Your task to perform on an android device: turn notification dots off Image 0: 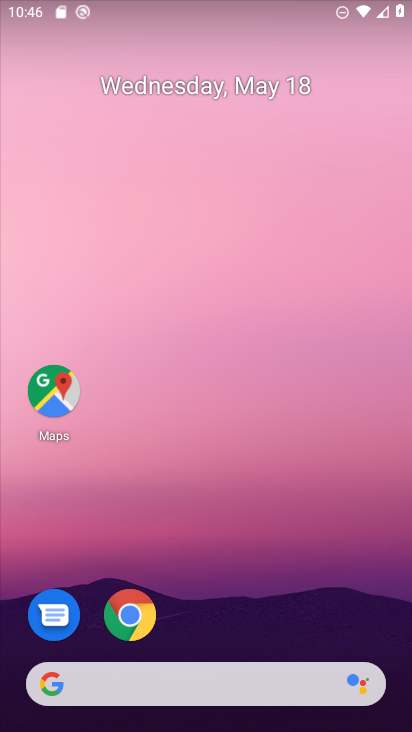
Step 0: drag from (241, 584) to (213, 101)
Your task to perform on an android device: turn notification dots off Image 1: 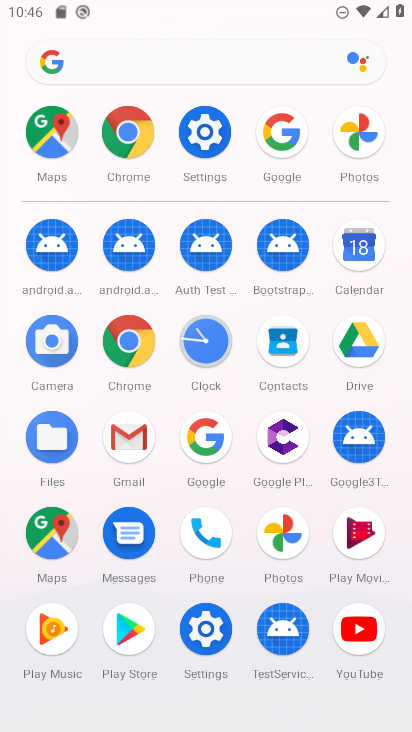
Step 1: click (202, 131)
Your task to perform on an android device: turn notification dots off Image 2: 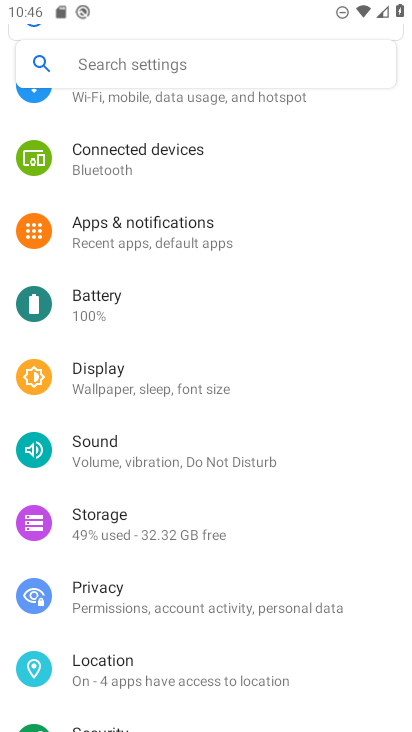
Step 2: click (163, 246)
Your task to perform on an android device: turn notification dots off Image 3: 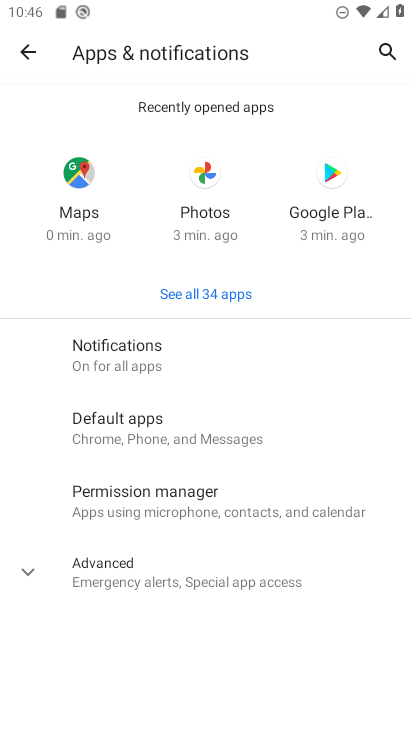
Step 3: click (145, 363)
Your task to perform on an android device: turn notification dots off Image 4: 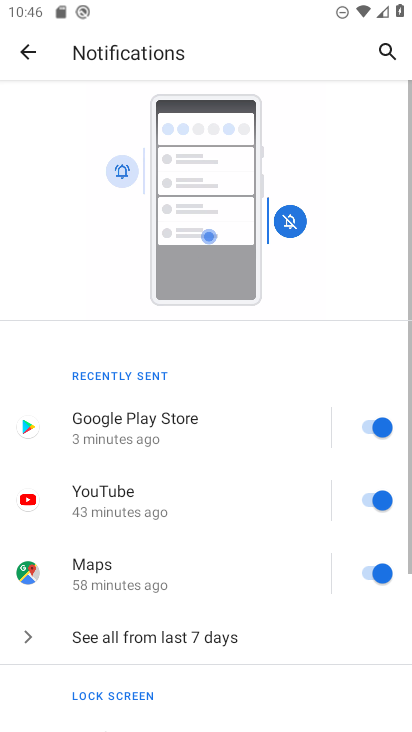
Step 4: drag from (190, 586) to (222, 23)
Your task to perform on an android device: turn notification dots off Image 5: 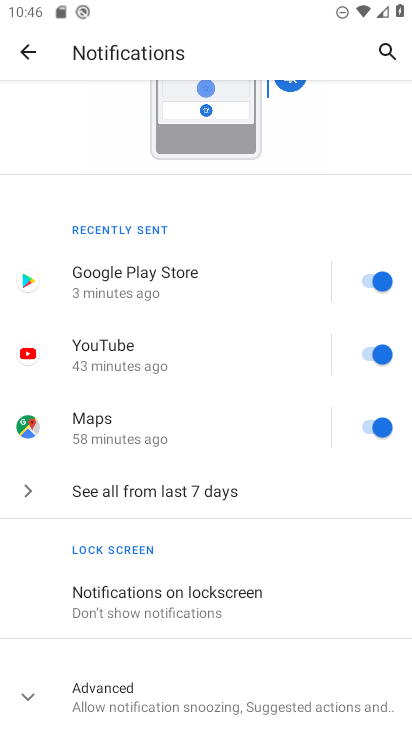
Step 5: drag from (248, 673) to (240, 254)
Your task to perform on an android device: turn notification dots off Image 6: 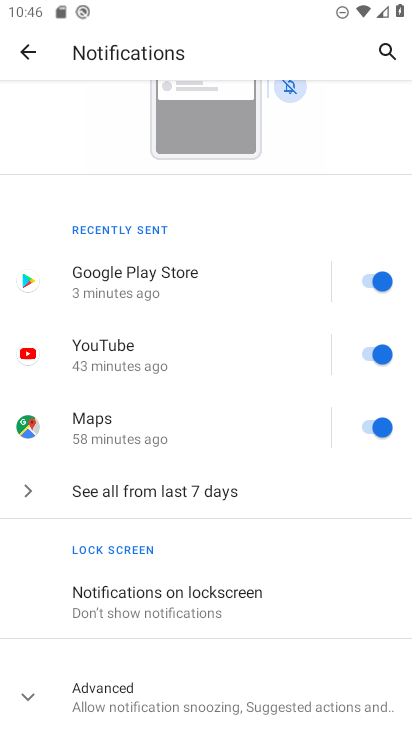
Step 6: click (131, 701)
Your task to perform on an android device: turn notification dots off Image 7: 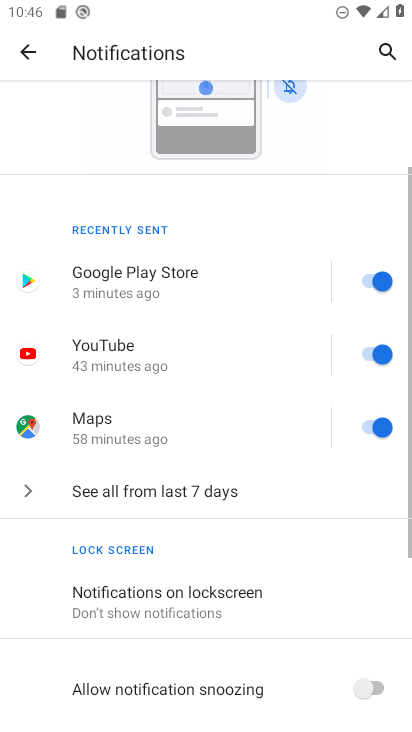
Step 7: drag from (246, 605) to (237, 159)
Your task to perform on an android device: turn notification dots off Image 8: 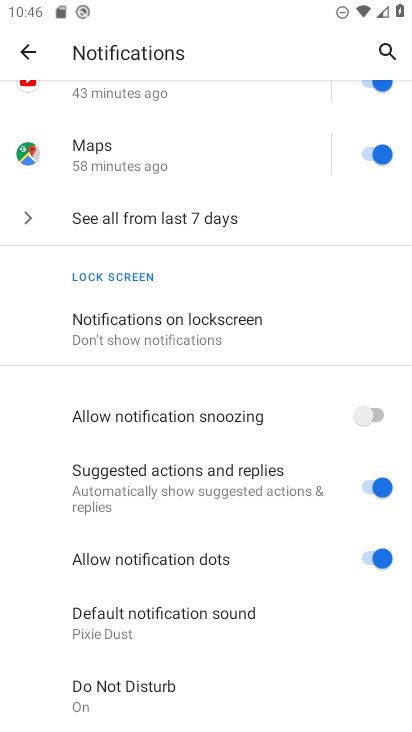
Step 8: click (379, 559)
Your task to perform on an android device: turn notification dots off Image 9: 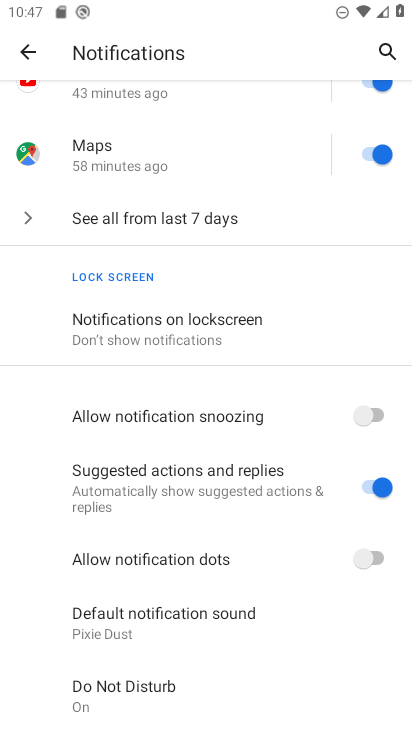
Step 9: task complete